Your task to perform on an android device: allow cookies in the chrome app Image 0: 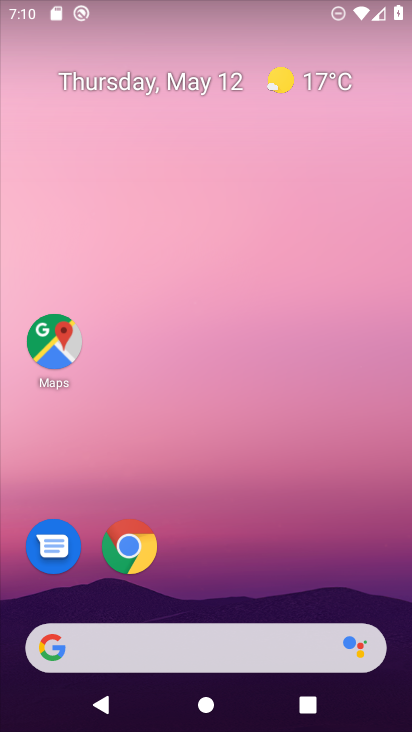
Step 0: click (123, 552)
Your task to perform on an android device: allow cookies in the chrome app Image 1: 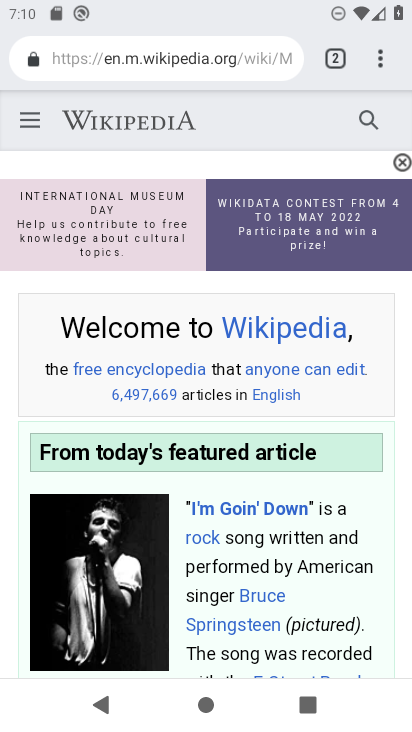
Step 1: click (380, 56)
Your task to perform on an android device: allow cookies in the chrome app Image 2: 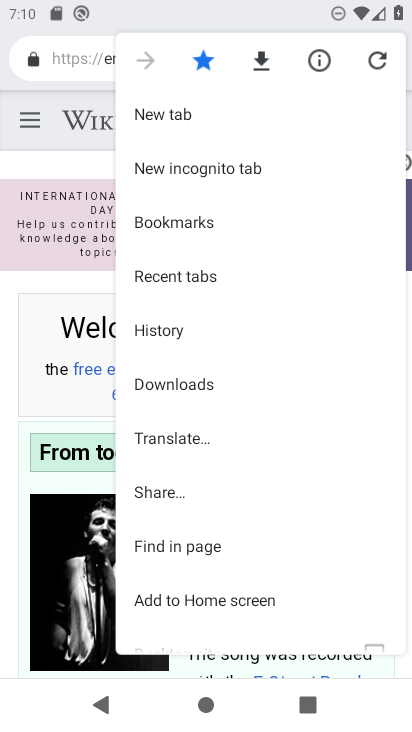
Step 2: drag from (237, 506) to (160, 179)
Your task to perform on an android device: allow cookies in the chrome app Image 3: 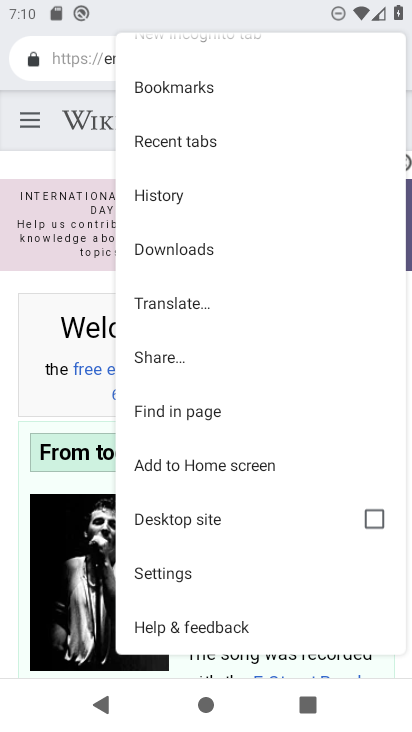
Step 3: click (162, 577)
Your task to perform on an android device: allow cookies in the chrome app Image 4: 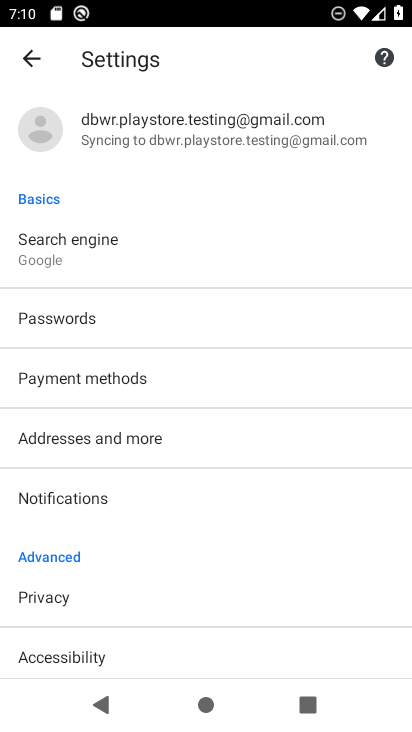
Step 4: drag from (204, 532) to (151, 148)
Your task to perform on an android device: allow cookies in the chrome app Image 5: 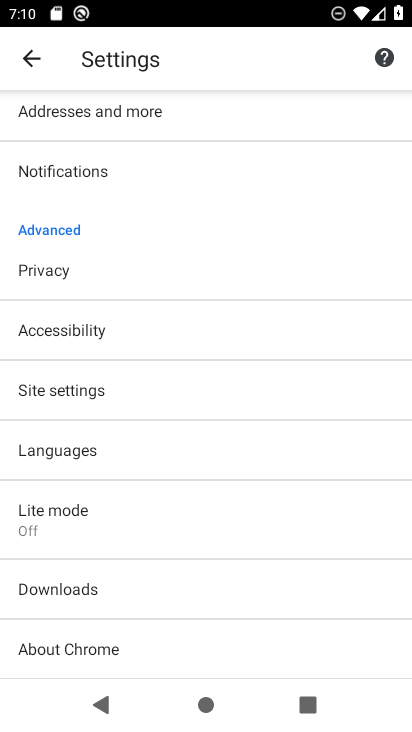
Step 5: click (50, 394)
Your task to perform on an android device: allow cookies in the chrome app Image 6: 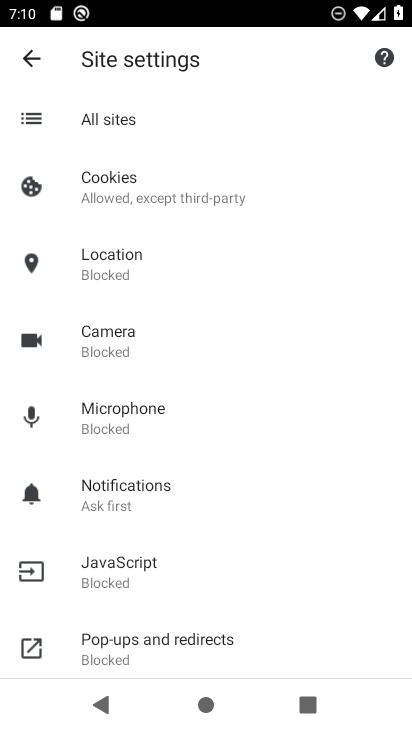
Step 6: click (109, 189)
Your task to perform on an android device: allow cookies in the chrome app Image 7: 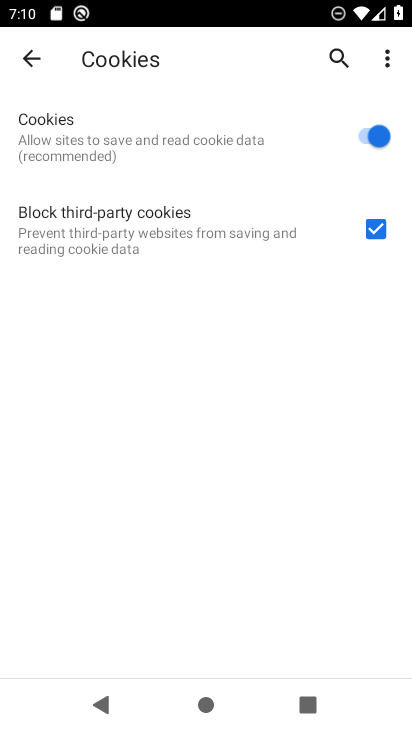
Step 7: task complete